Your task to perform on an android device: Search for hotels in Los Angeles Image 0: 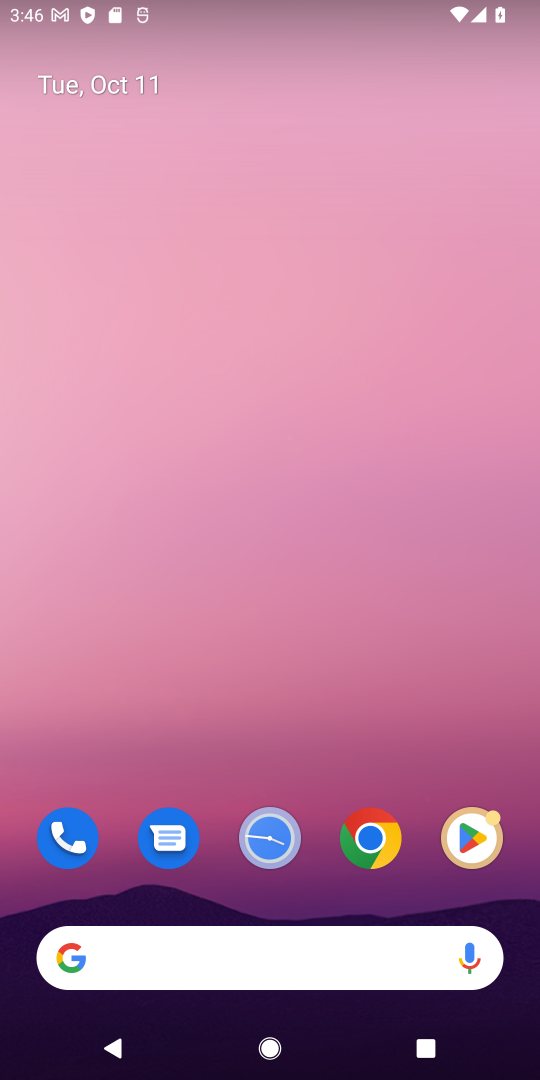
Step 0: click (281, 952)
Your task to perform on an android device: Search for hotels in Los Angeles Image 1: 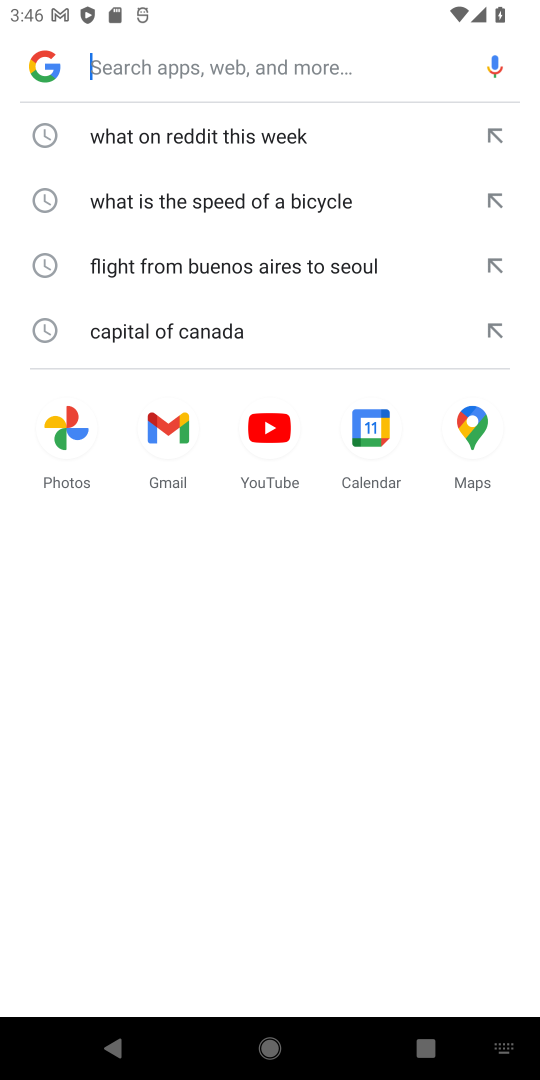
Step 1: click (133, 56)
Your task to perform on an android device: Search for hotels in Los Angeles Image 2: 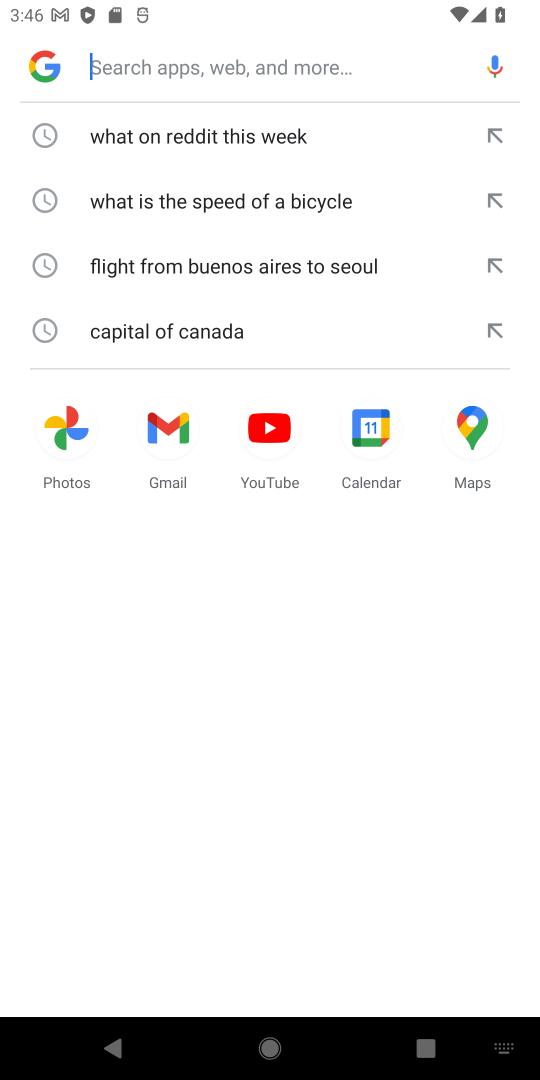
Step 2: type "hotels in Los Angeles"
Your task to perform on an android device: Search for hotels in Los Angeles Image 3: 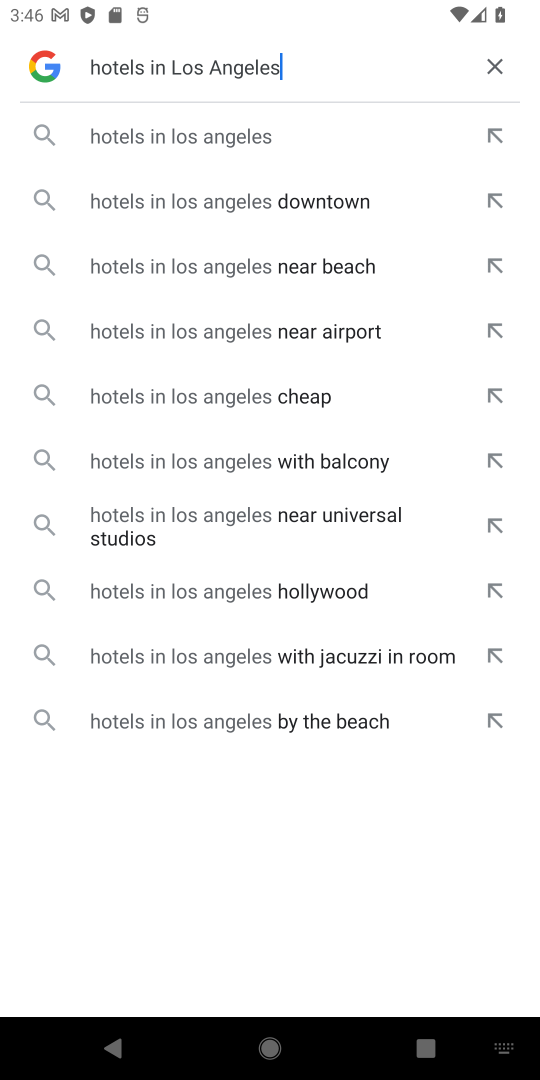
Step 3: click (214, 134)
Your task to perform on an android device: Search for hotels in Los Angeles Image 4: 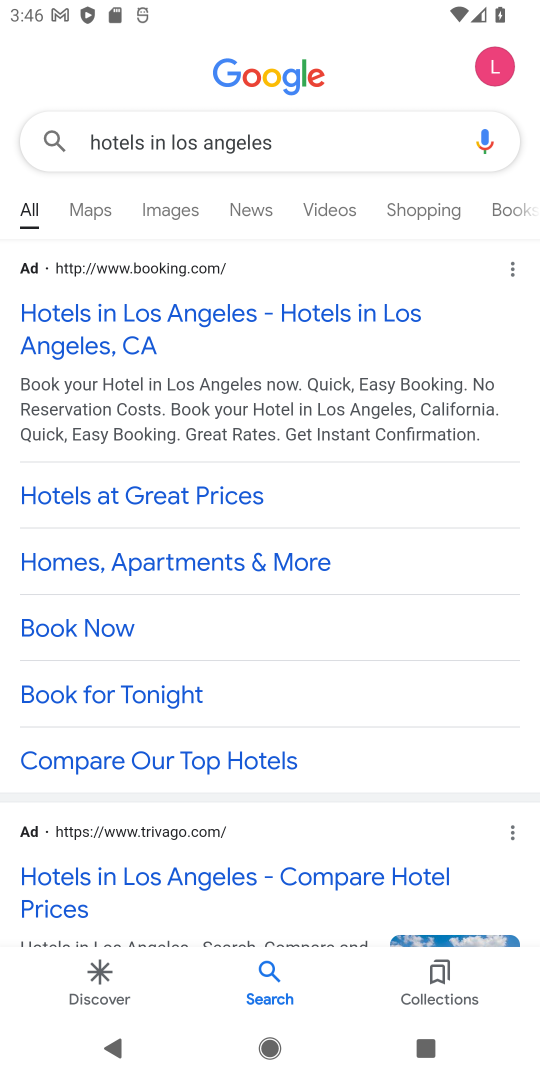
Step 4: task complete